Your task to perform on an android device: Open Google Chrome Image 0: 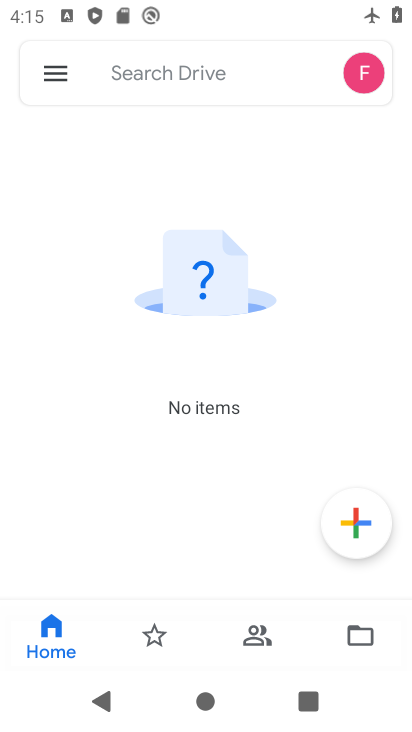
Step 0: press home button
Your task to perform on an android device: Open Google Chrome Image 1: 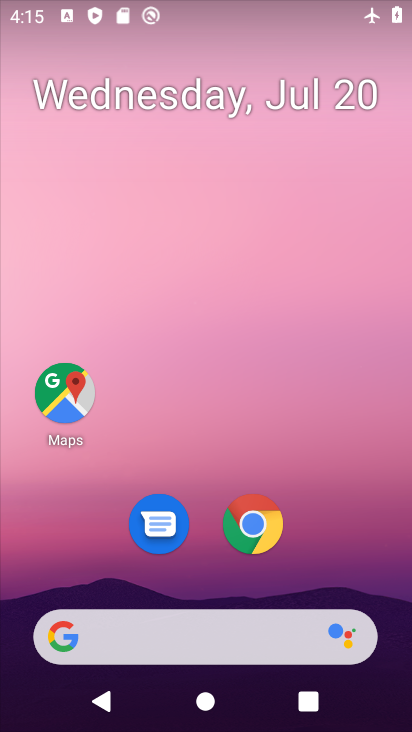
Step 1: click (249, 526)
Your task to perform on an android device: Open Google Chrome Image 2: 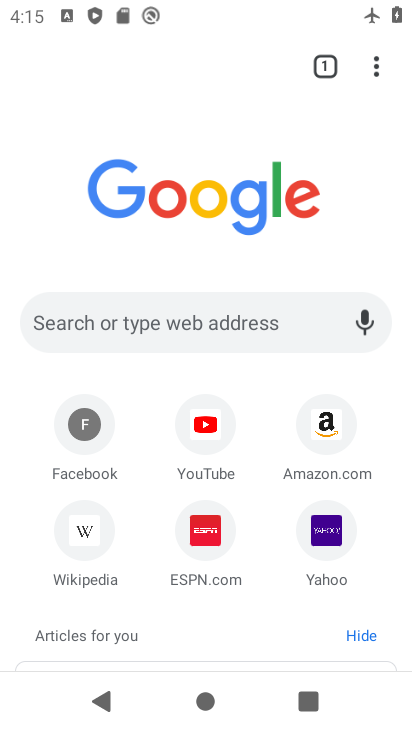
Step 2: task complete